Your task to perform on an android device: Open calendar and show me the third week of next month Image 0: 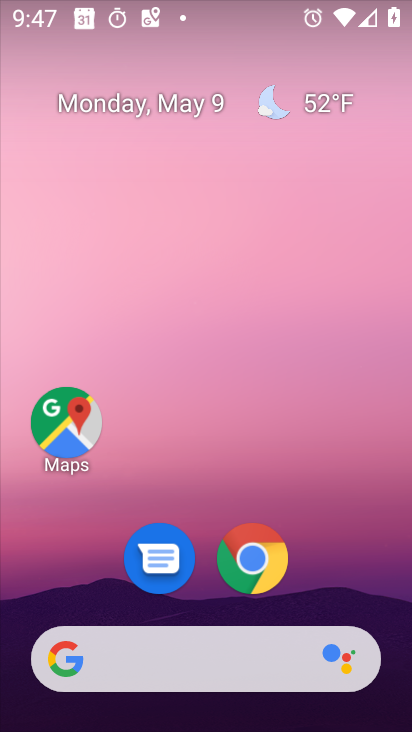
Step 0: drag from (214, 595) to (326, 47)
Your task to perform on an android device: Open calendar and show me the third week of next month Image 1: 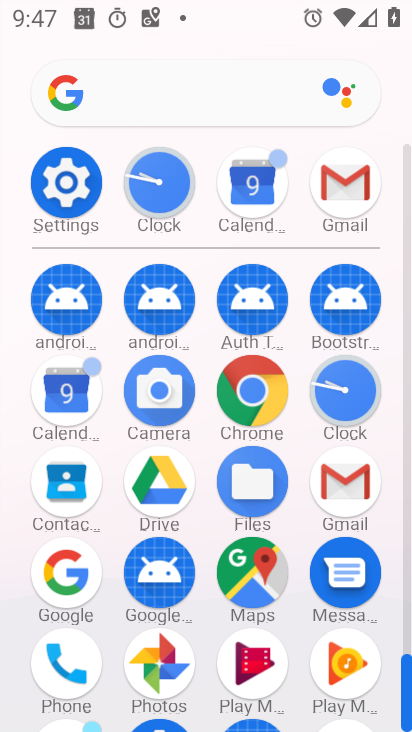
Step 1: click (78, 396)
Your task to perform on an android device: Open calendar and show me the third week of next month Image 2: 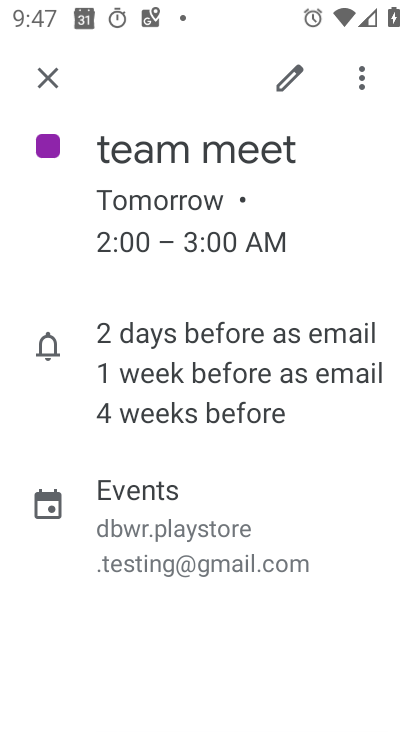
Step 2: click (46, 69)
Your task to perform on an android device: Open calendar and show me the third week of next month Image 3: 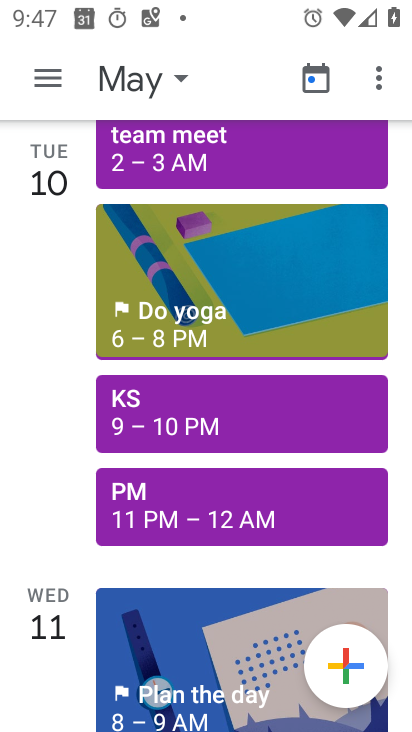
Step 3: click (158, 64)
Your task to perform on an android device: Open calendar and show me the third week of next month Image 4: 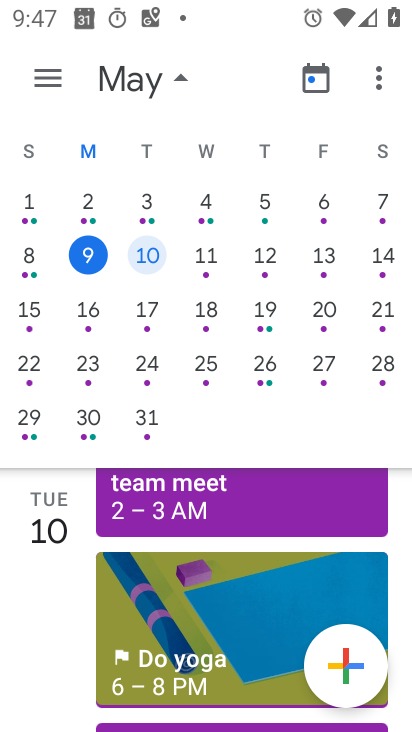
Step 4: drag from (369, 293) to (122, 254)
Your task to perform on an android device: Open calendar and show me the third week of next month Image 5: 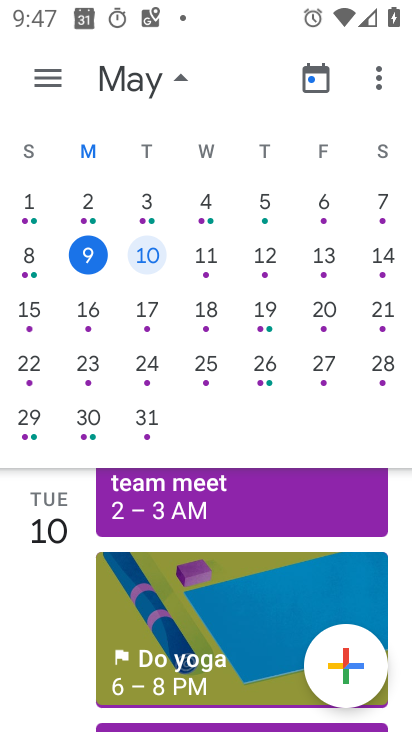
Step 5: drag from (390, 317) to (69, 286)
Your task to perform on an android device: Open calendar and show me the third week of next month Image 6: 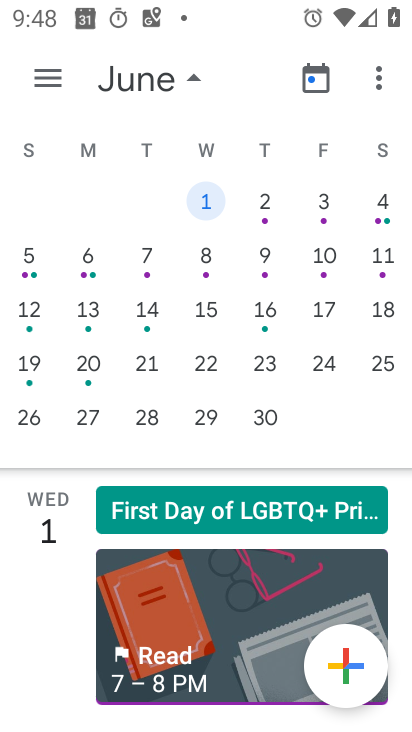
Step 6: click (87, 310)
Your task to perform on an android device: Open calendar and show me the third week of next month Image 7: 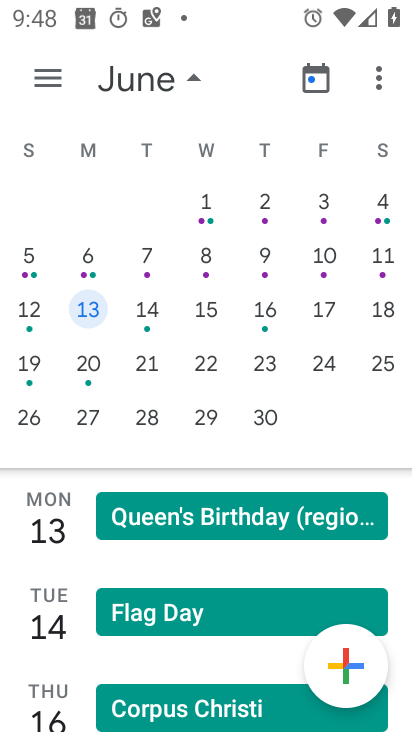
Step 7: task complete